Your task to perform on an android device: add a contact in the contacts app Image 0: 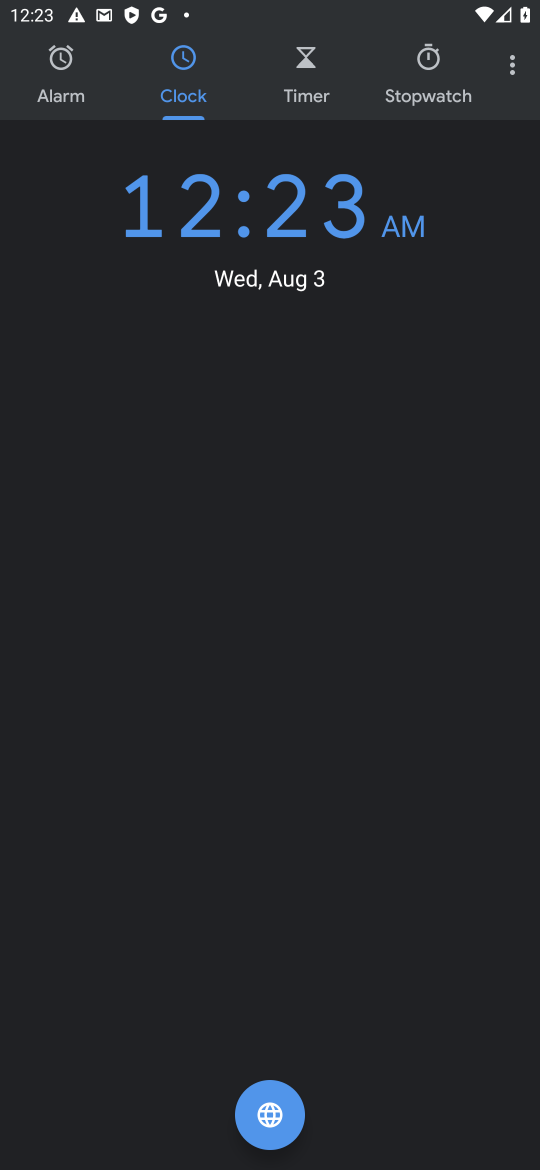
Step 0: task complete